Your task to perform on an android device: turn on showing notifications on the lock screen Image 0: 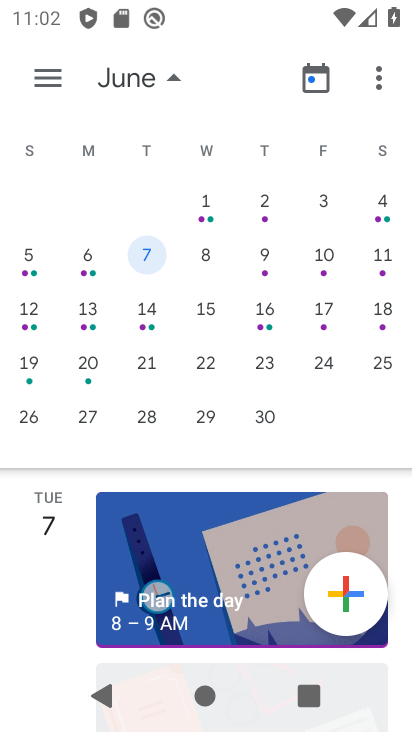
Step 0: press home button
Your task to perform on an android device: turn on showing notifications on the lock screen Image 1: 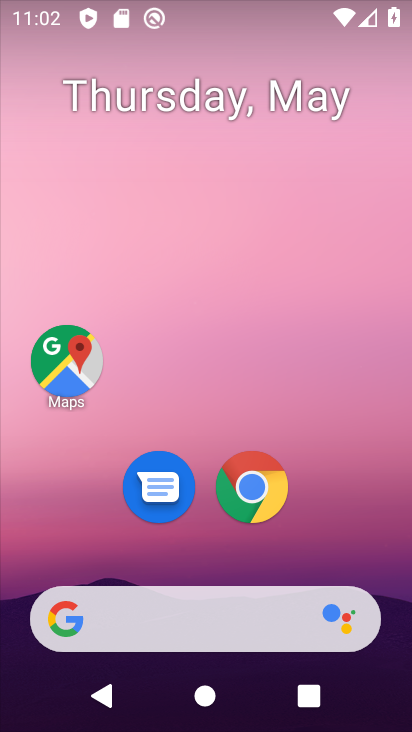
Step 1: drag from (397, 554) to (383, 9)
Your task to perform on an android device: turn on showing notifications on the lock screen Image 2: 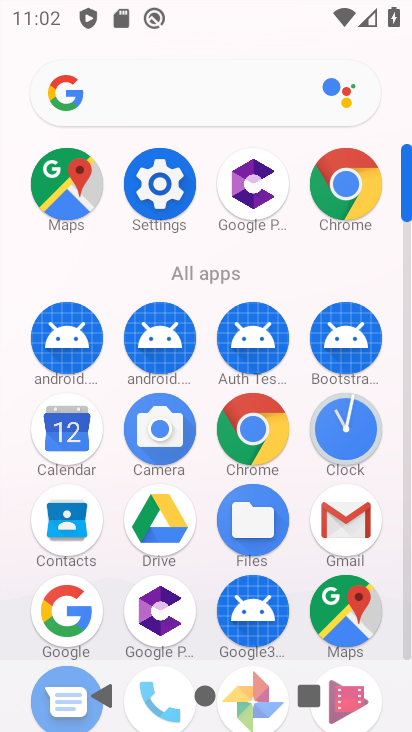
Step 2: click (168, 174)
Your task to perform on an android device: turn on showing notifications on the lock screen Image 3: 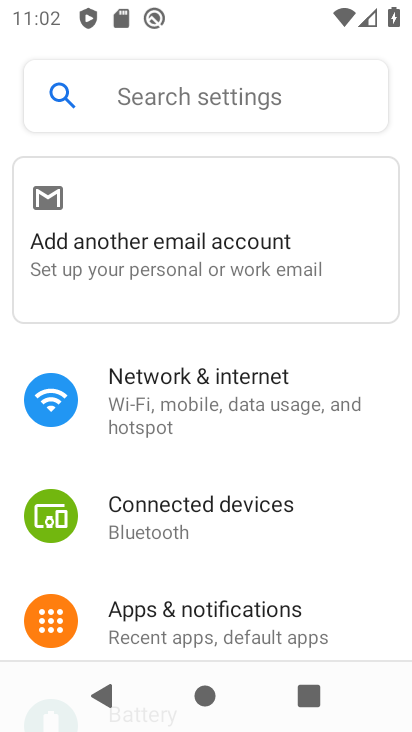
Step 3: click (289, 621)
Your task to perform on an android device: turn on showing notifications on the lock screen Image 4: 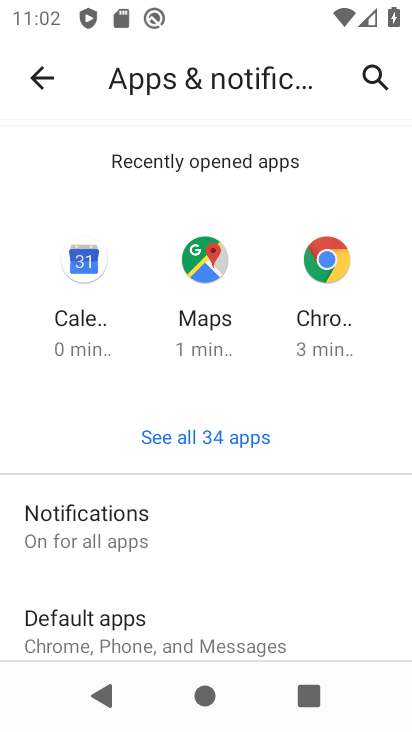
Step 4: click (64, 524)
Your task to perform on an android device: turn on showing notifications on the lock screen Image 5: 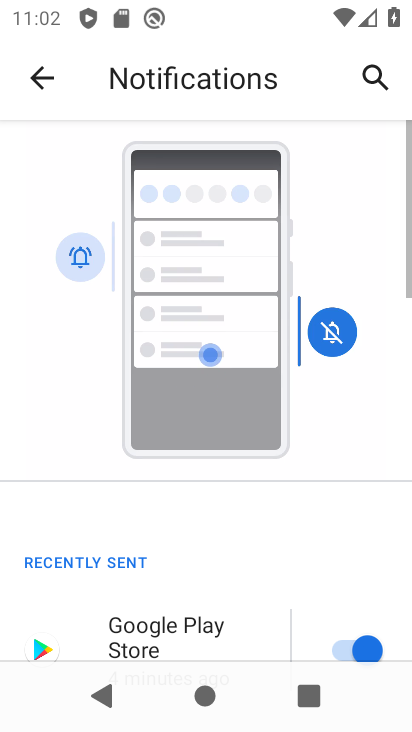
Step 5: drag from (149, 607) to (91, 31)
Your task to perform on an android device: turn on showing notifications on the lock screen Image 6: 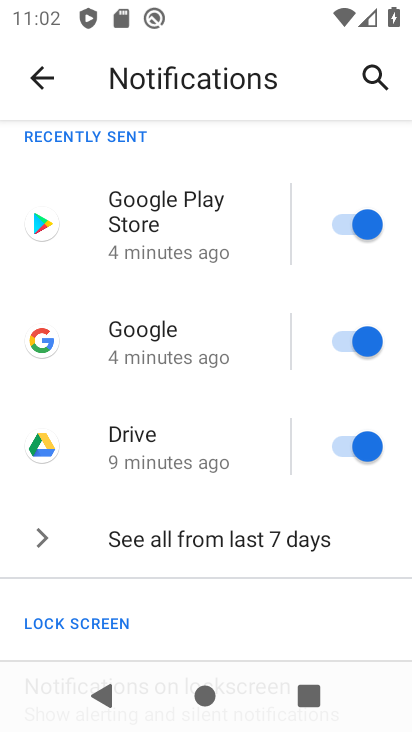
Step 6: drag from (196, 573) to (219, 142)
Your task to perform on an android device: turn on showing notifications on the lock screen Image 7: 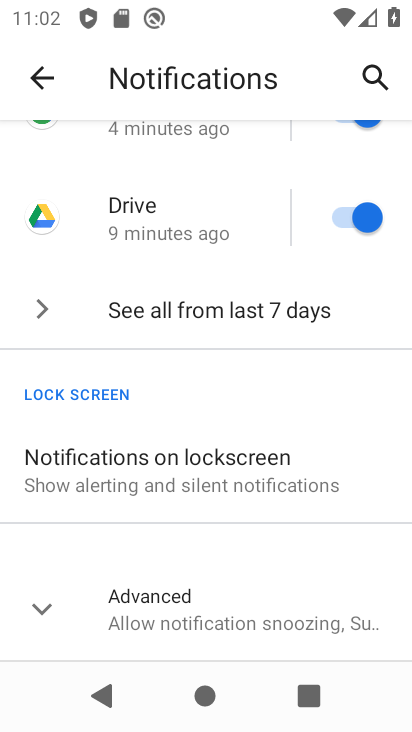
Step 7: click (199, 496)
Your task to perform on an android device: turn on showing notifications on the lock screen Image 8: 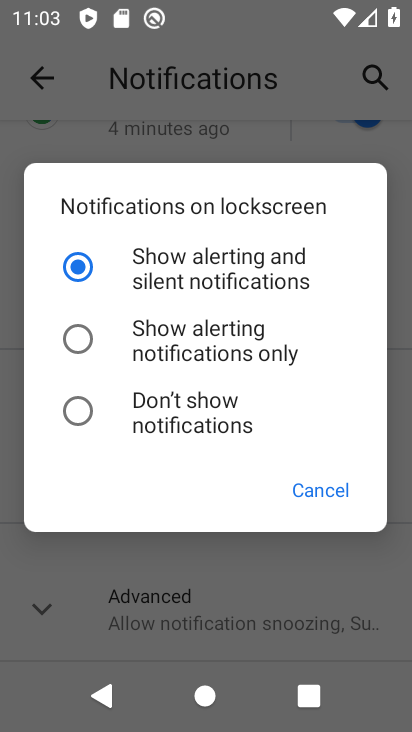
Step 8: click (89, 352)
Your task to perform on an android device: turn on showing notifications on the lock screen Image 9: 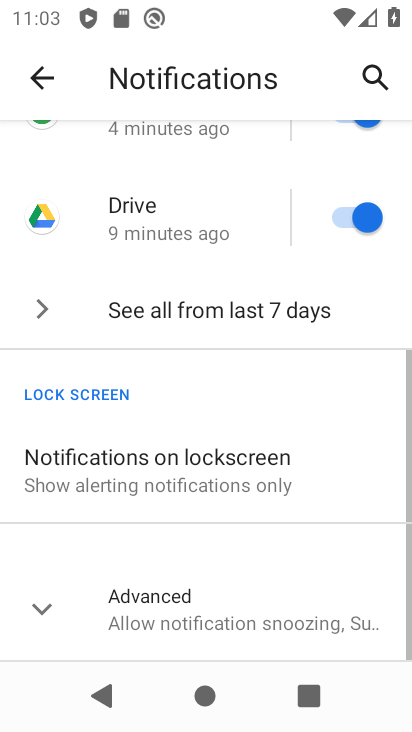
Step 9: task complete